Your task to perform on an android device: turn notification dots on Image 0: 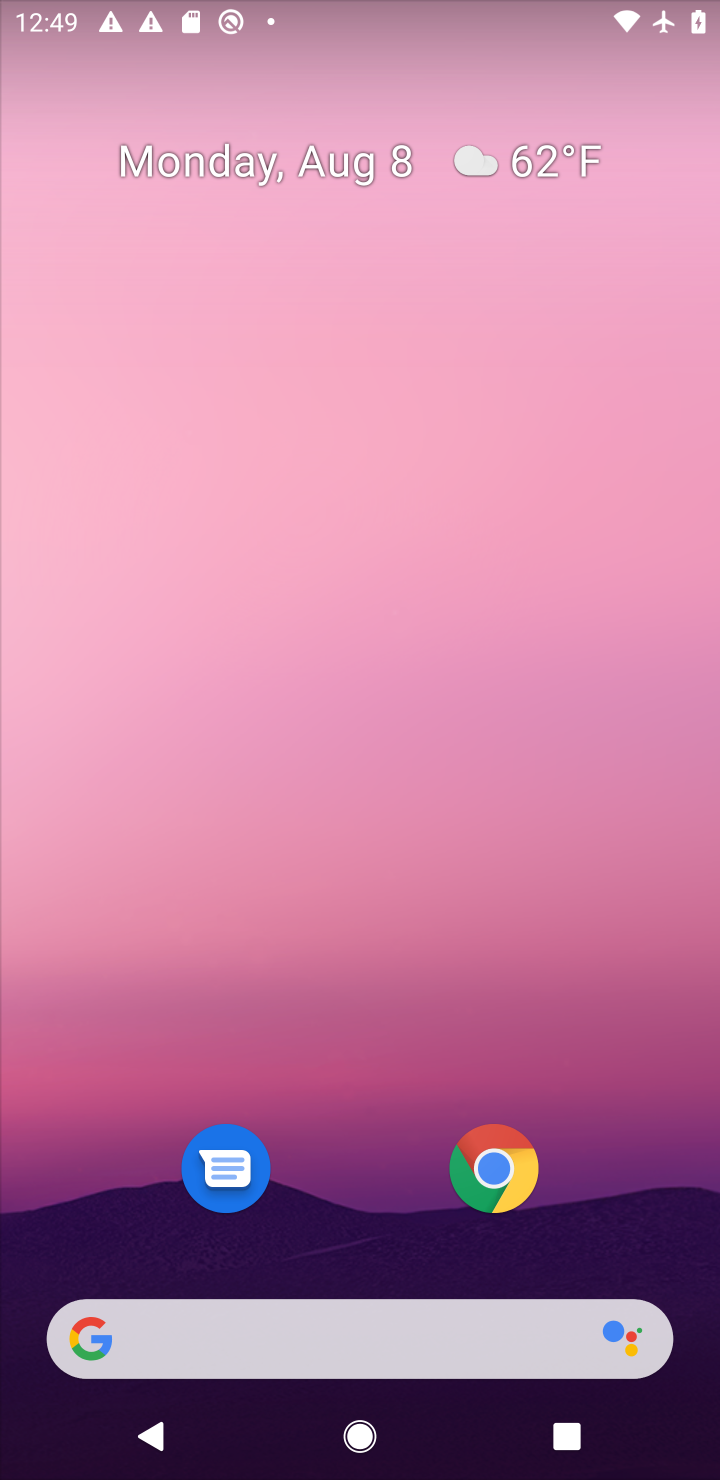
Step 0: drag from (391, 1283) to (327, 346)
Your task to perform on an android device: turn notification dots on Image 1: 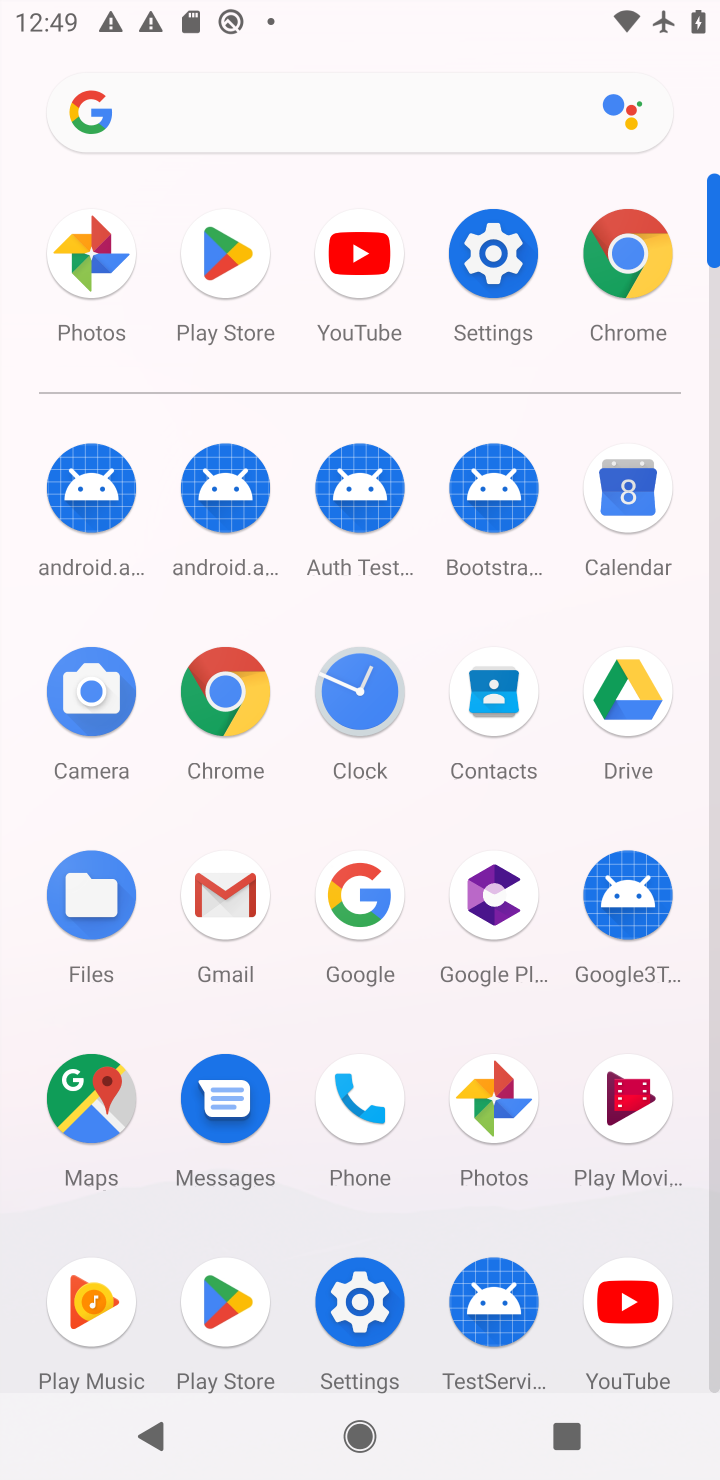
Step 1: click (499, 253)
Your task to perform on an android device: turn notification dots on Image 2: 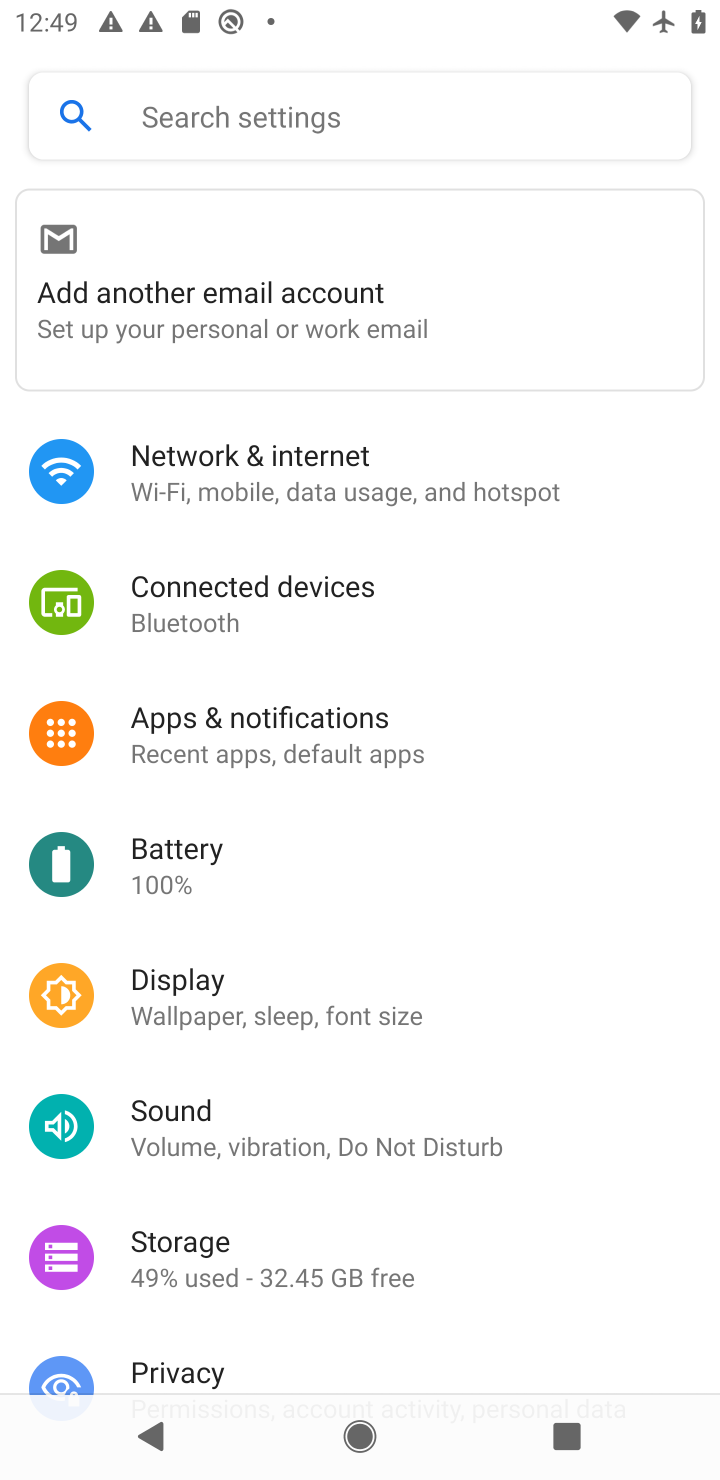
Step 2: click (296, 724)
Your task to perform on an android device: turn notification dots on Image 3: 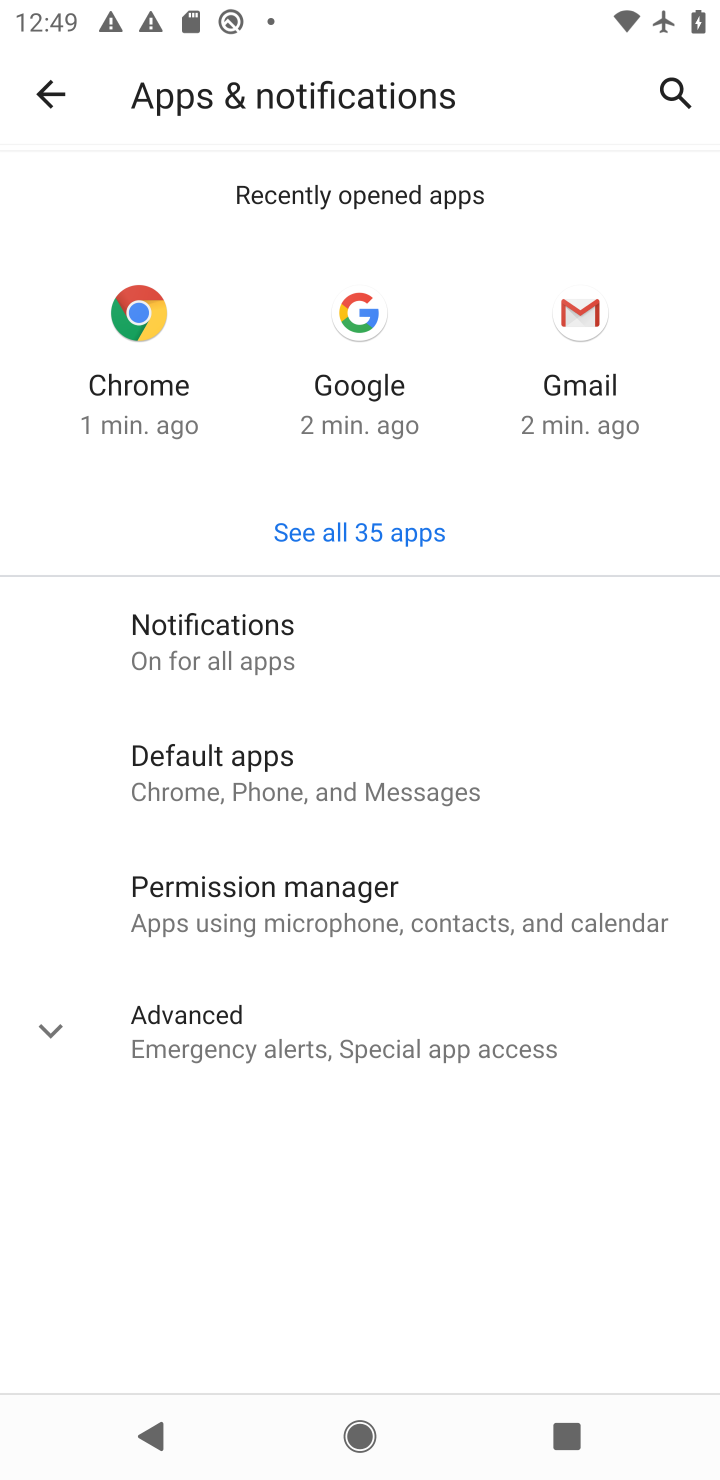
Step 3: click (312, 1023)
Your task to perform on an android device: turn notification dots on Image 4: 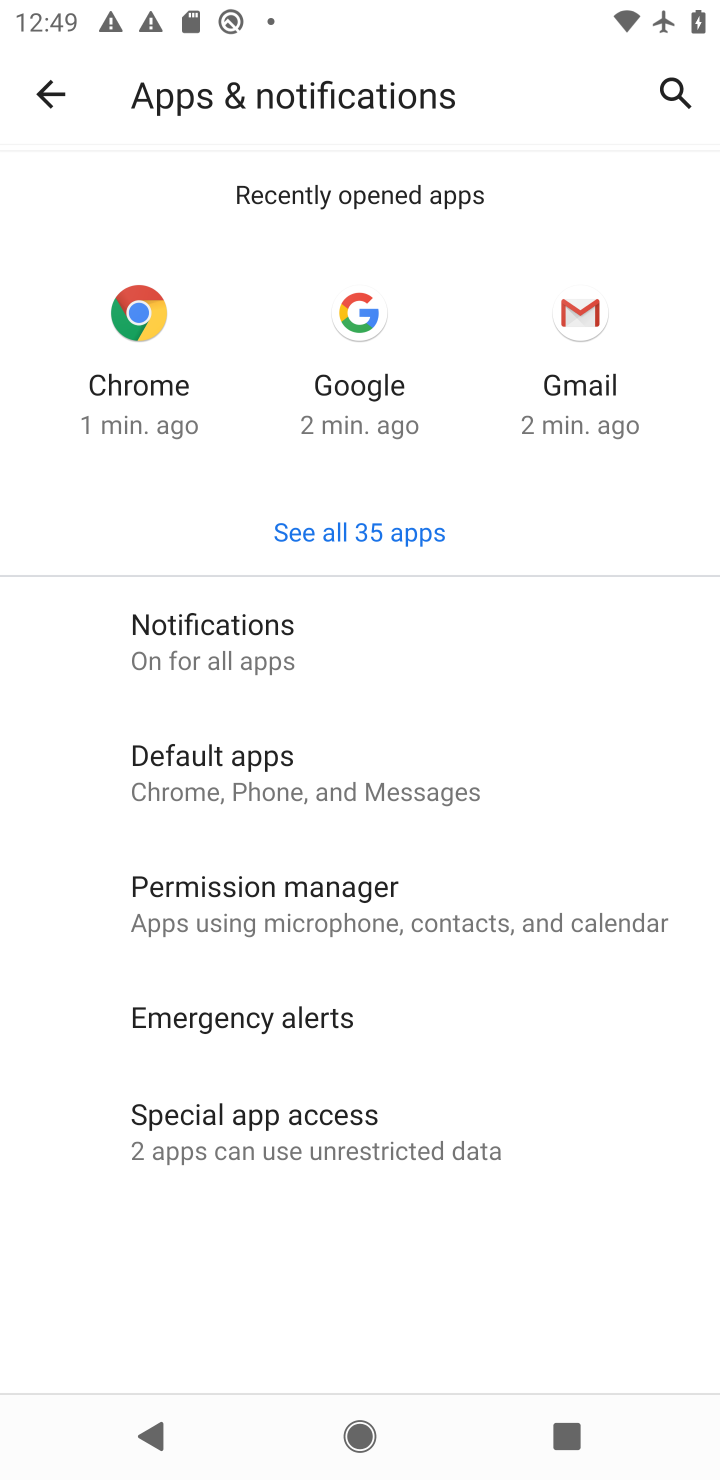
Step 4: click (295, 631)
Your task to perform on an android device: turn notification dots on Image 5: 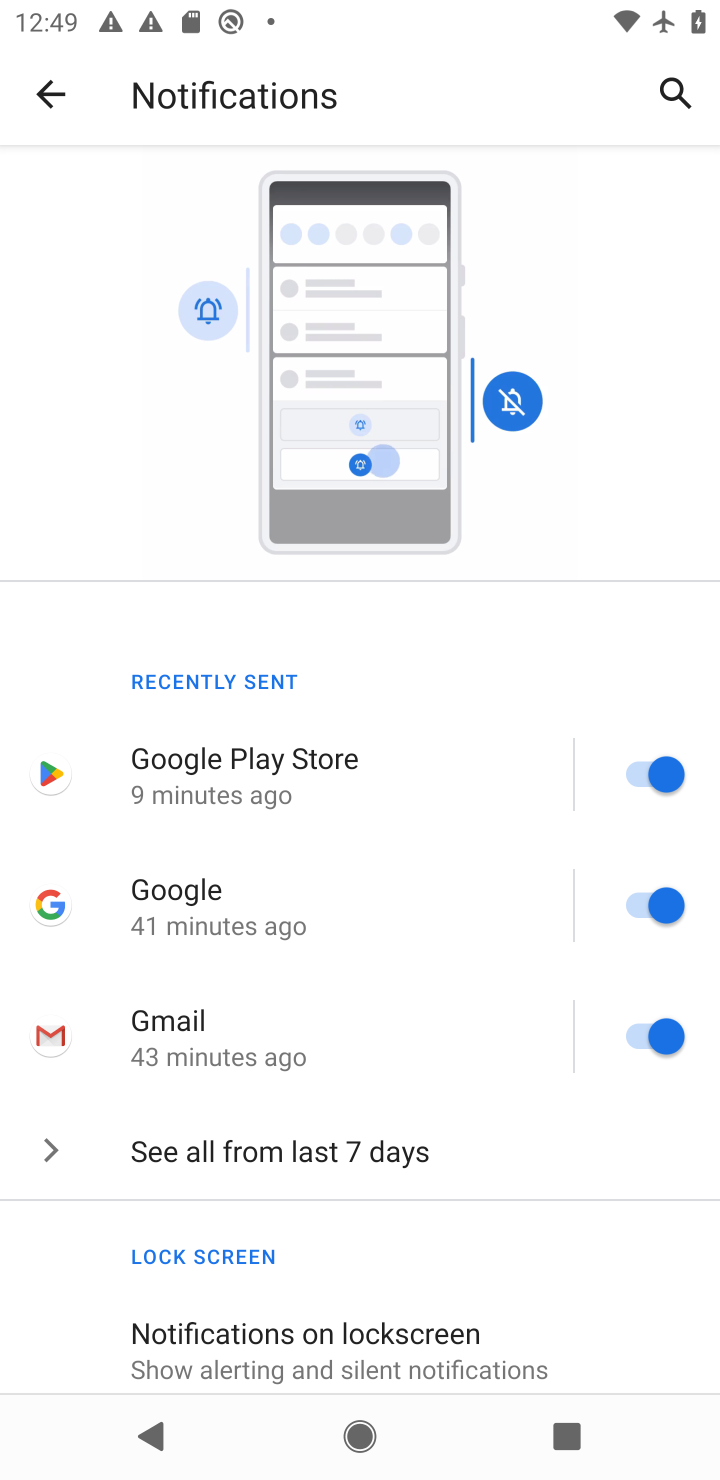
Step 5: task complete